Your task to perform on an android device: turn on the 24-hour format for clock Image 0: 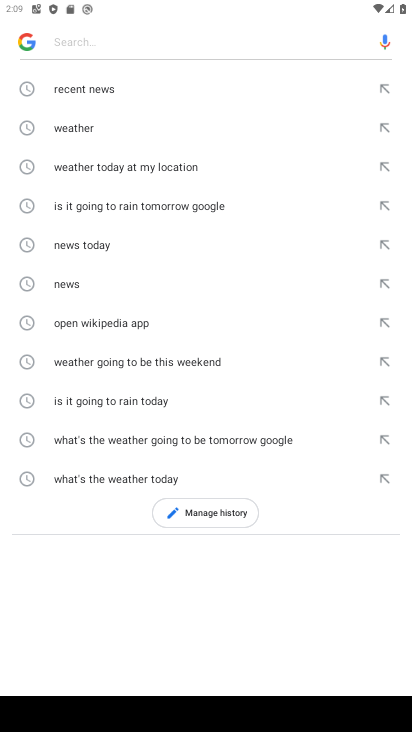
Step 0: press back button
Your task to perform on an android device: turn on the 24-hour format for clock Image 1: 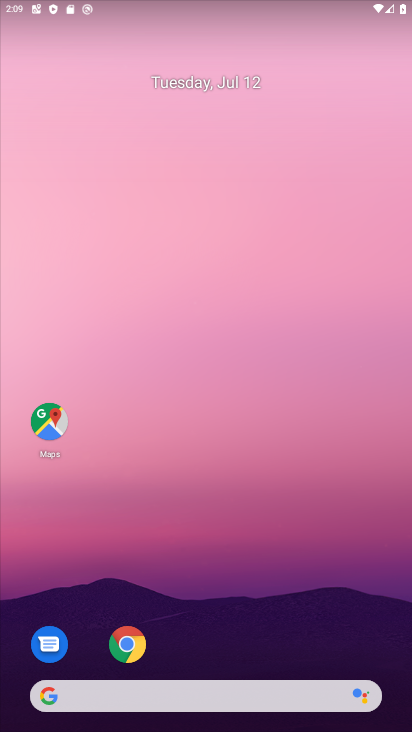
Step 1: drag from (177, 705) to (135, 64)
Your task to perform on an android device: turn on the 24-hour format for clock Image 2: 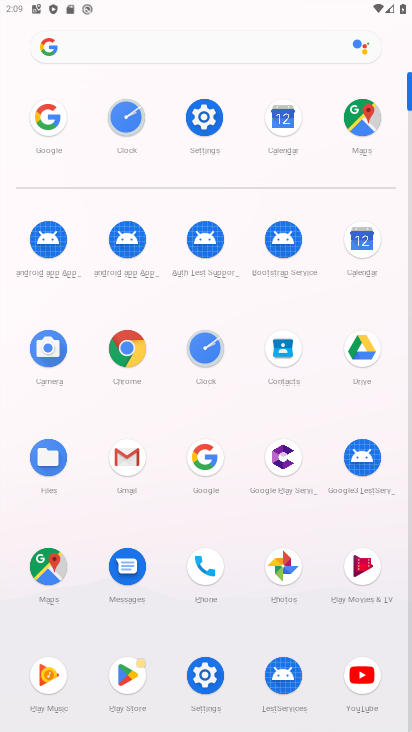
Step 2: click (189, 345)
Your task to perform on an android device: turn on the 24-hour format for clock Image 3: 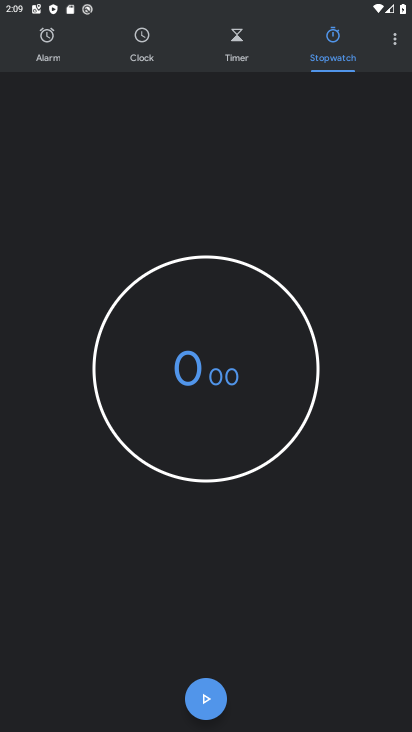
Step 3: click (405, 38)
Your task to perform on an android device: turn on the 24-hour format for clock Image 4: 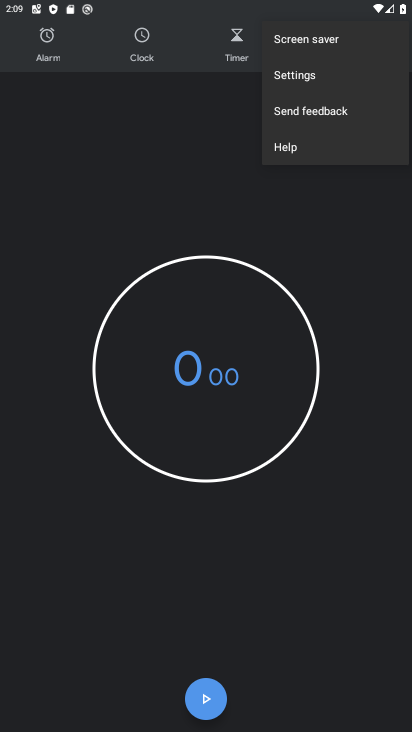
Step 4: click (300, 76)
Your task to perform on an android device: turn on the 24-hour format for clock Image 5: 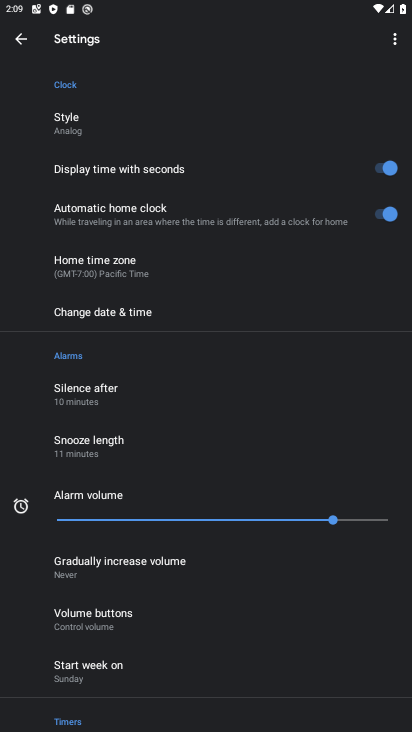
Step 5: drag from (204, 545) to (203, 180)
Your task to perform on an android device: turn on the 24-hour format for clock Image 6: 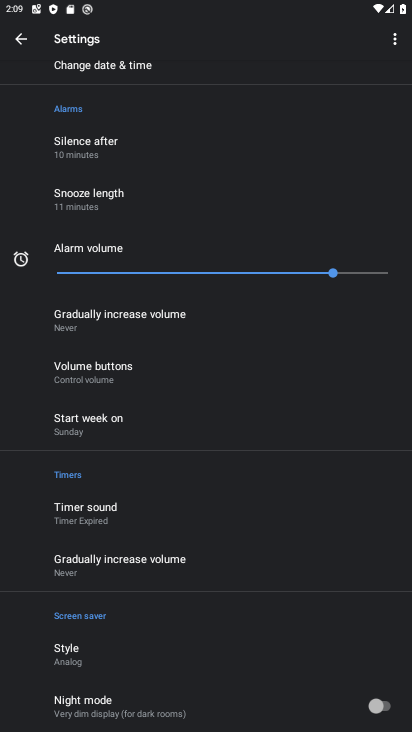
Step 6: click (58, 79)
Your task to perform on an android device: turn on the 24-hour format for clock Image 7: 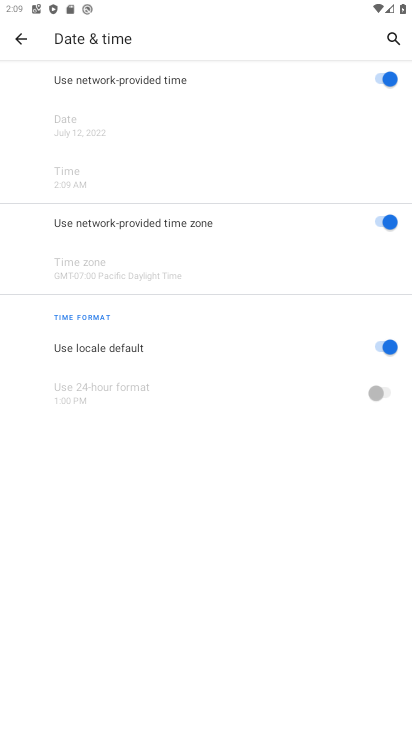
Step 7: click (379, 344)
Your task to perform on an android device: turn on the 24-hour format for clock Image 8: 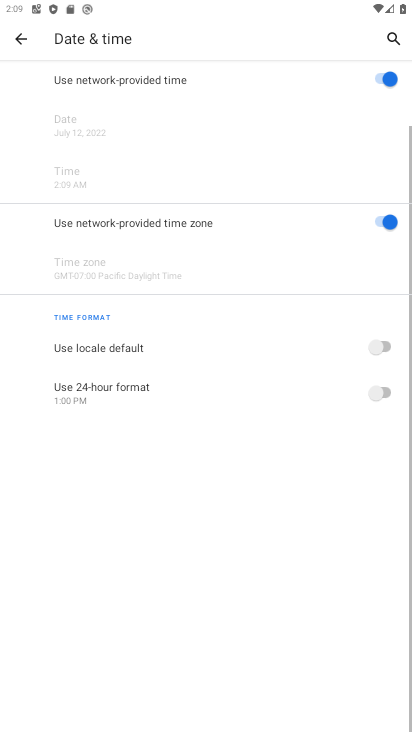
Step 8: click (371, 388)
Your task to perform on an android device: turn on the 24-hour format for clock Image 9: 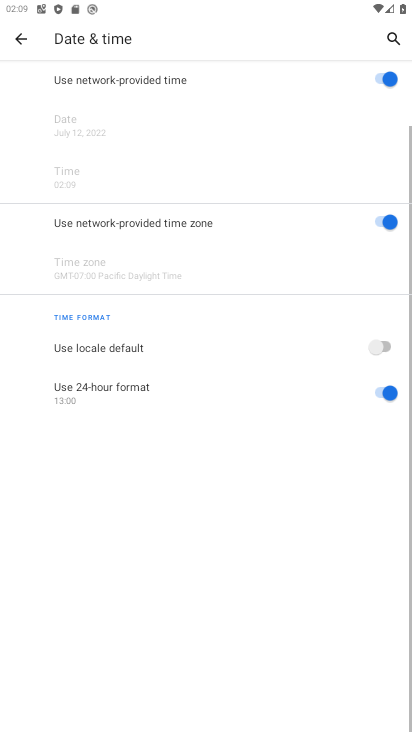
Step 9: task complete